Your task to perform on an android device: Open Amazon Image 0: 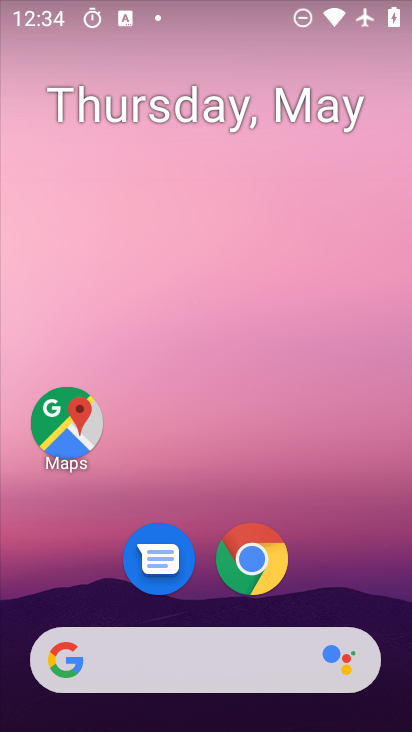
Step 0: drag from (232, 630) to (287, 227)
Your task to perform on an android device: Open Amazon Image 1: 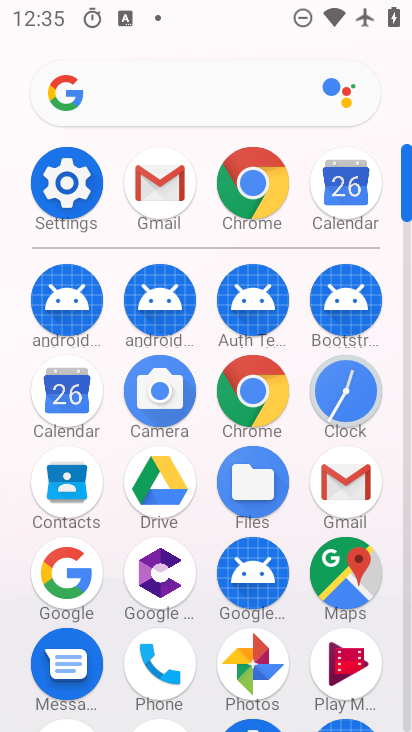
Step 1: drag from (231, 463) to (290, 229)
Your task to perform on an android device: Open Amazon Image 2: 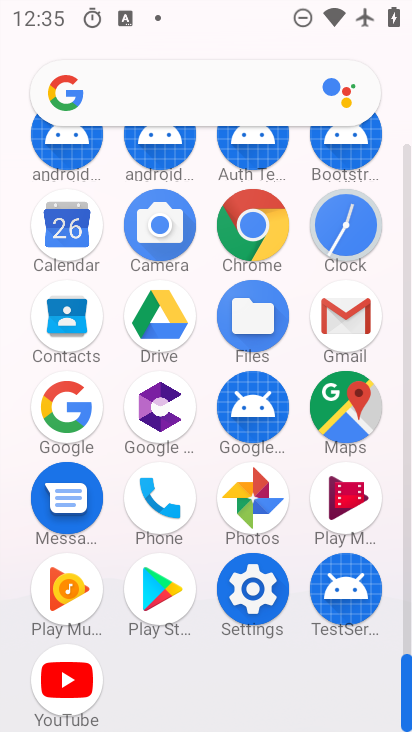
Step 2: click (277, 229)
Your task to perform on an android device: Open Amazon Image 3: 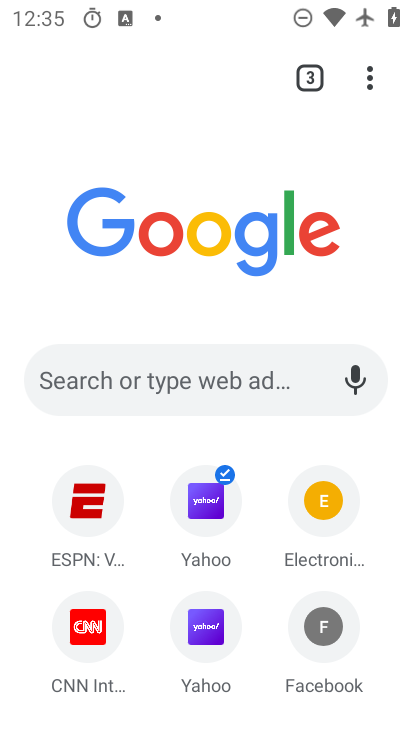
Step 3: click (217, 378)
Your task to perform on an android device: Open Amazon Image 4: 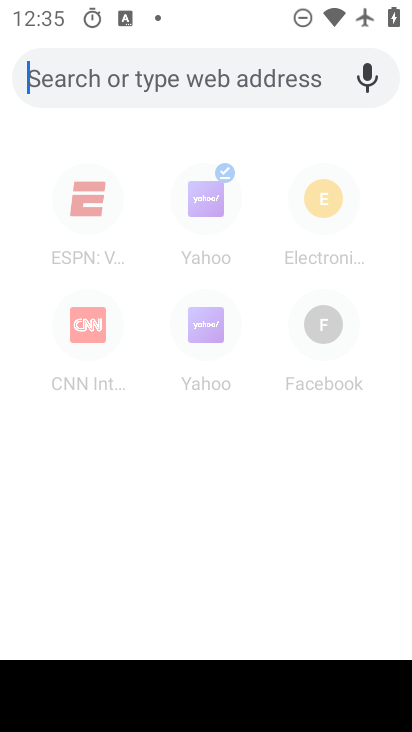
Step 4: type "amazon"
Your task to perform on an android device: Open Amazon Image 5: 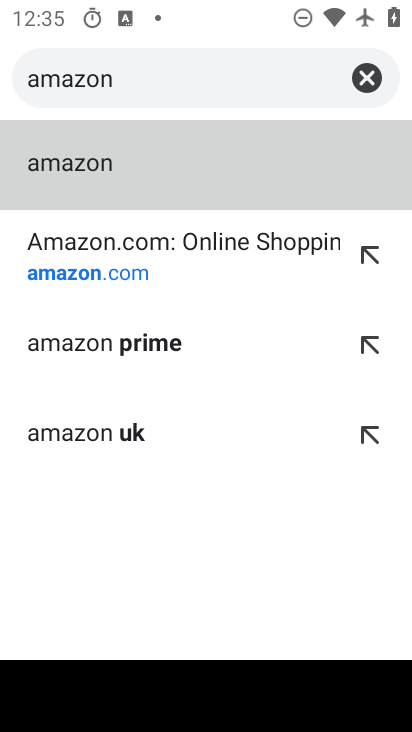
Step 5: click (152, 250)
Your task to perform on an android device: Open Amazon Image 6: 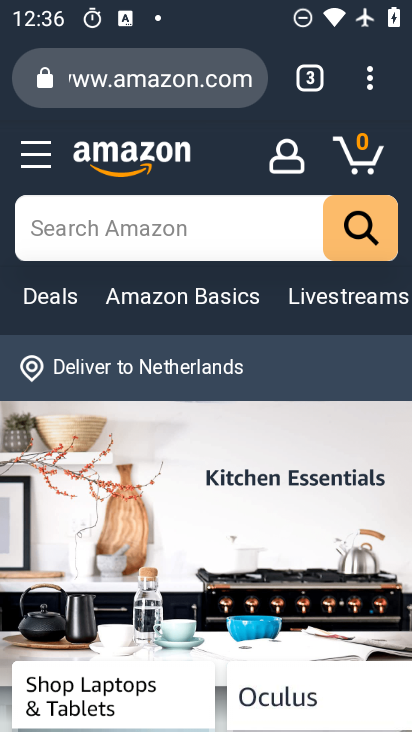
Step 6: task complete